Your task to perform on an android device: open app "File Manager" Image 0: 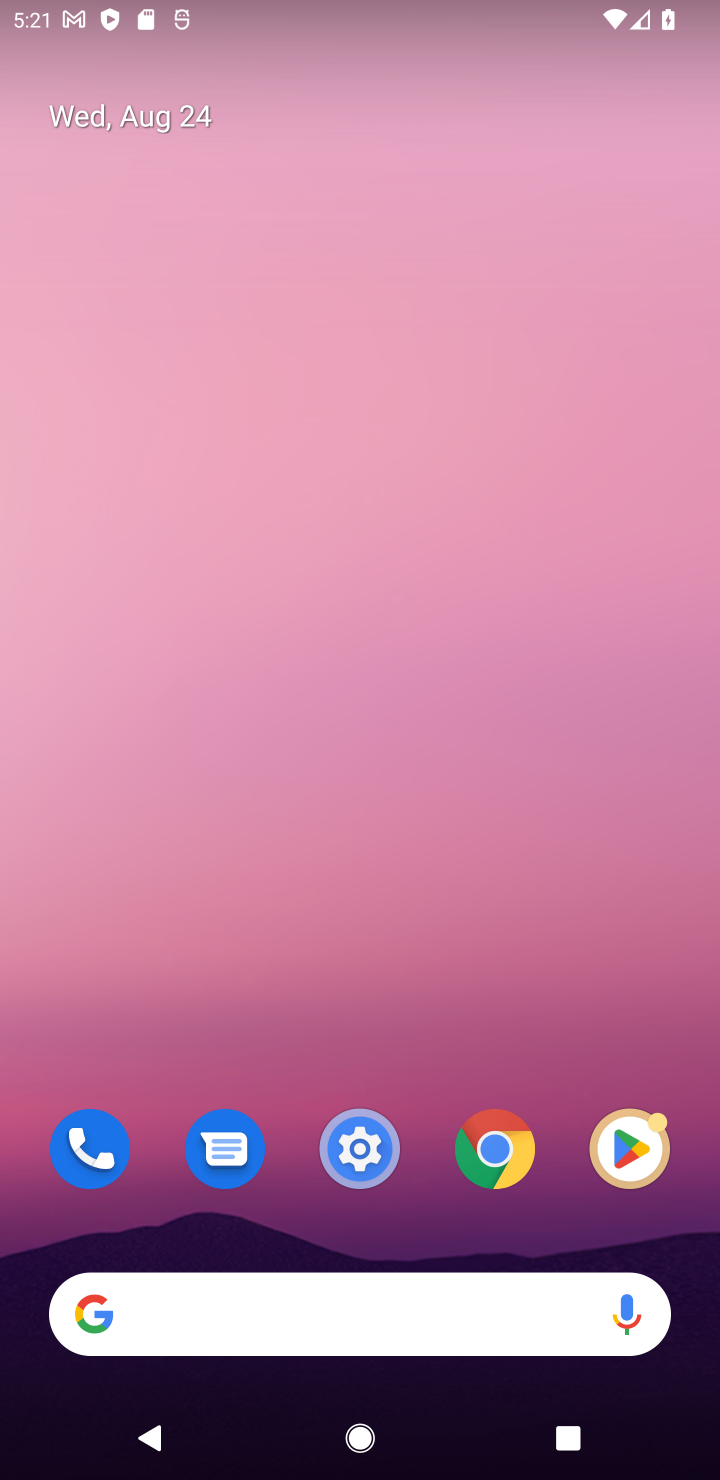
Step 0: click (636, 1154)
Your task to perform on an android device: open app "File Manager" Image 1: 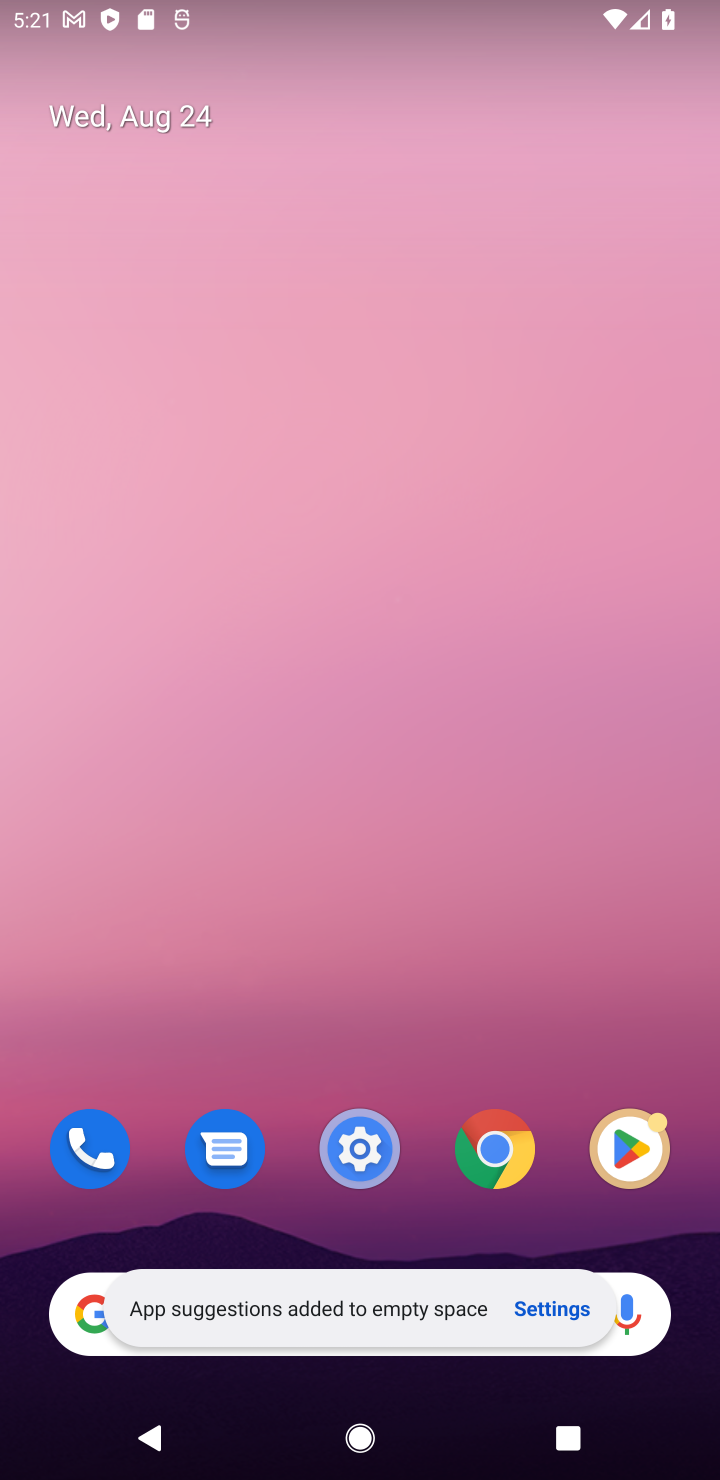
Step 1: click (620, 1161)
Your task to perform on an android device: open app "File Manager" Image 2: 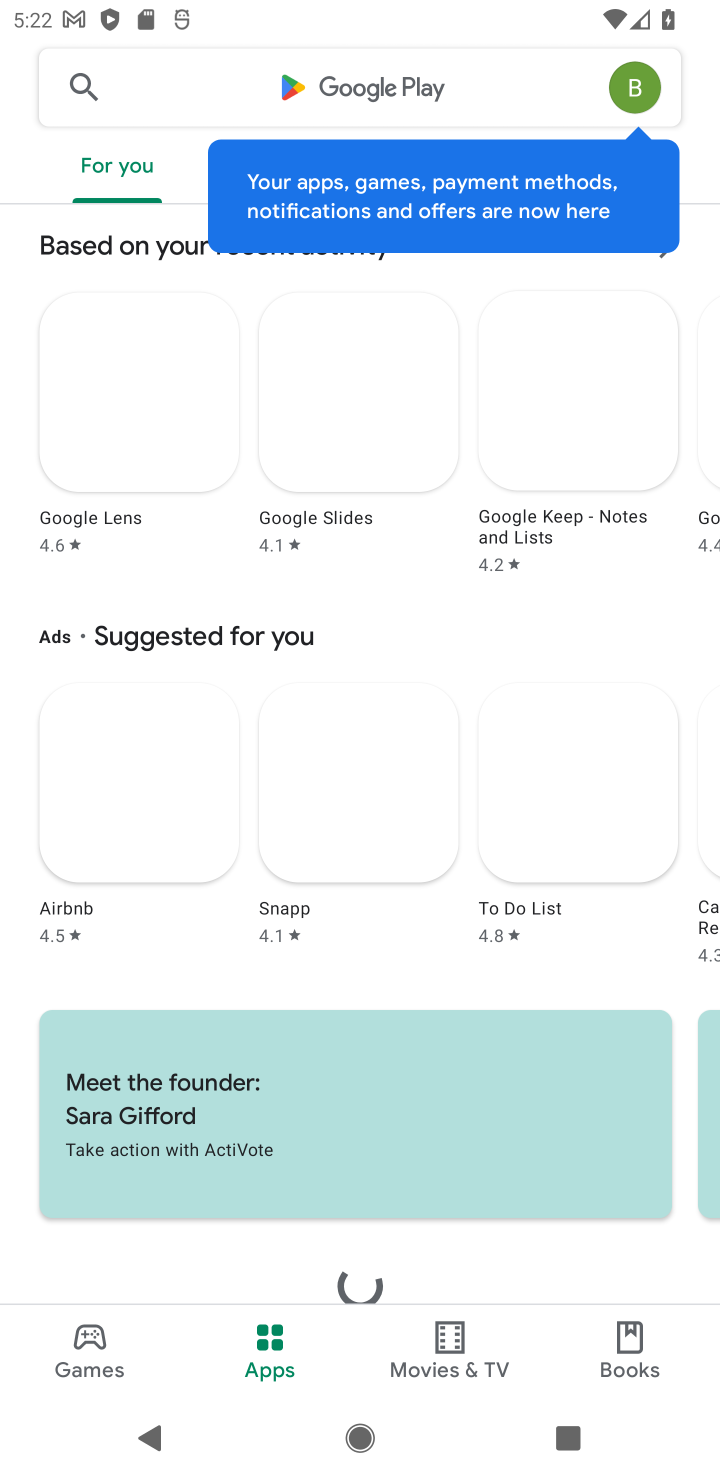
Step 2: click (365, 80)
Your task to perform on an android device: open app "File Manager" Image 3: 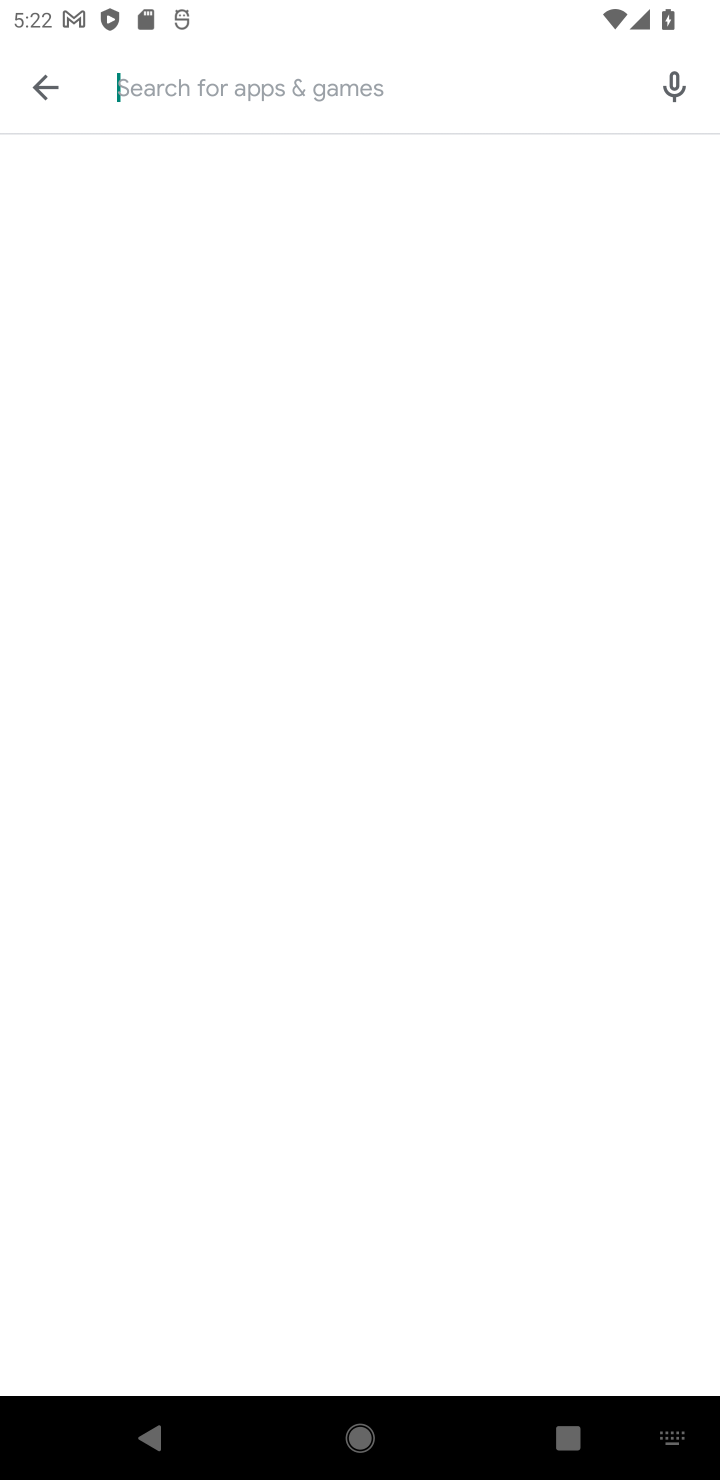
Step 3: type "File Manager"
Your task to perform on an android device: open app "File Manager" Image 4: 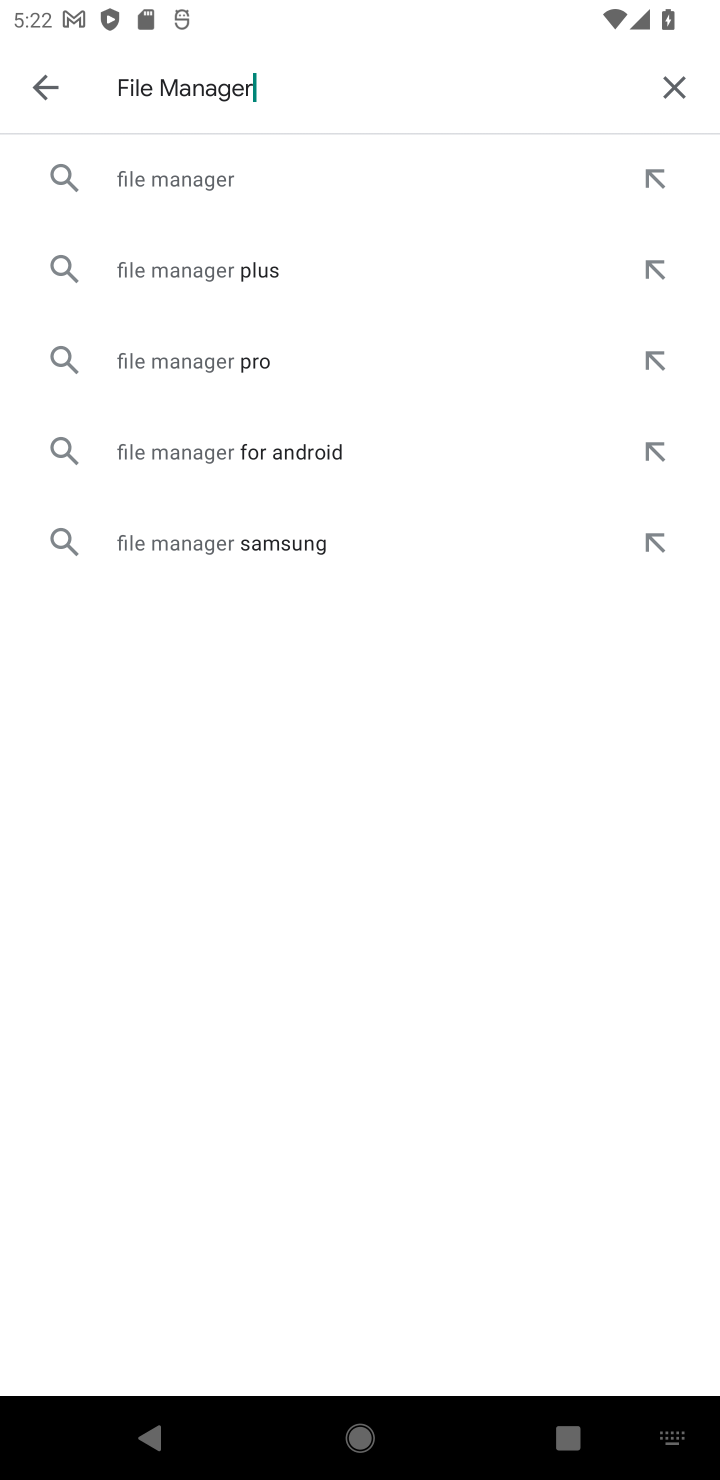
Step 4: click (165, 177)
Your task to perform on an android device: open app "File Manager" Image 5: 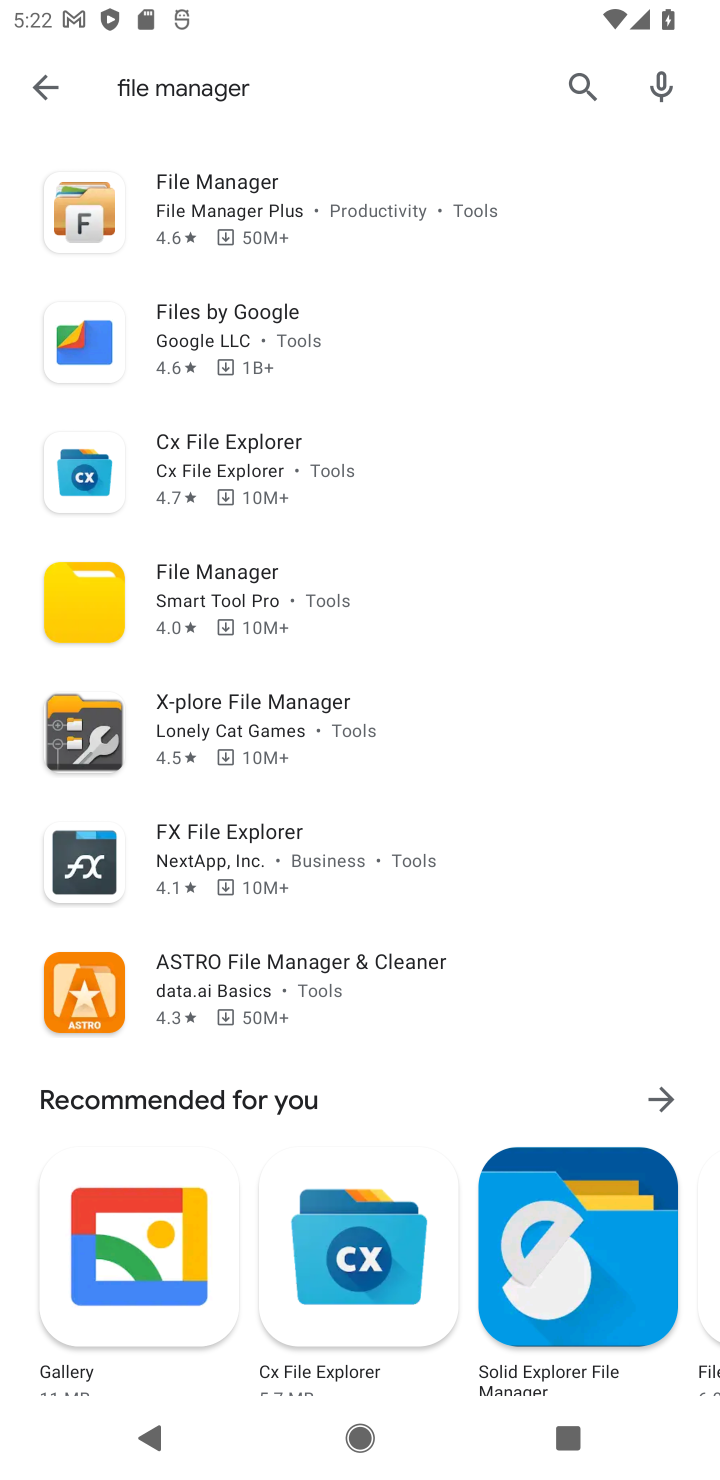
Step 5: click (265, 211)
Your task to perform on an android device: open app "File Manager" Image 6: 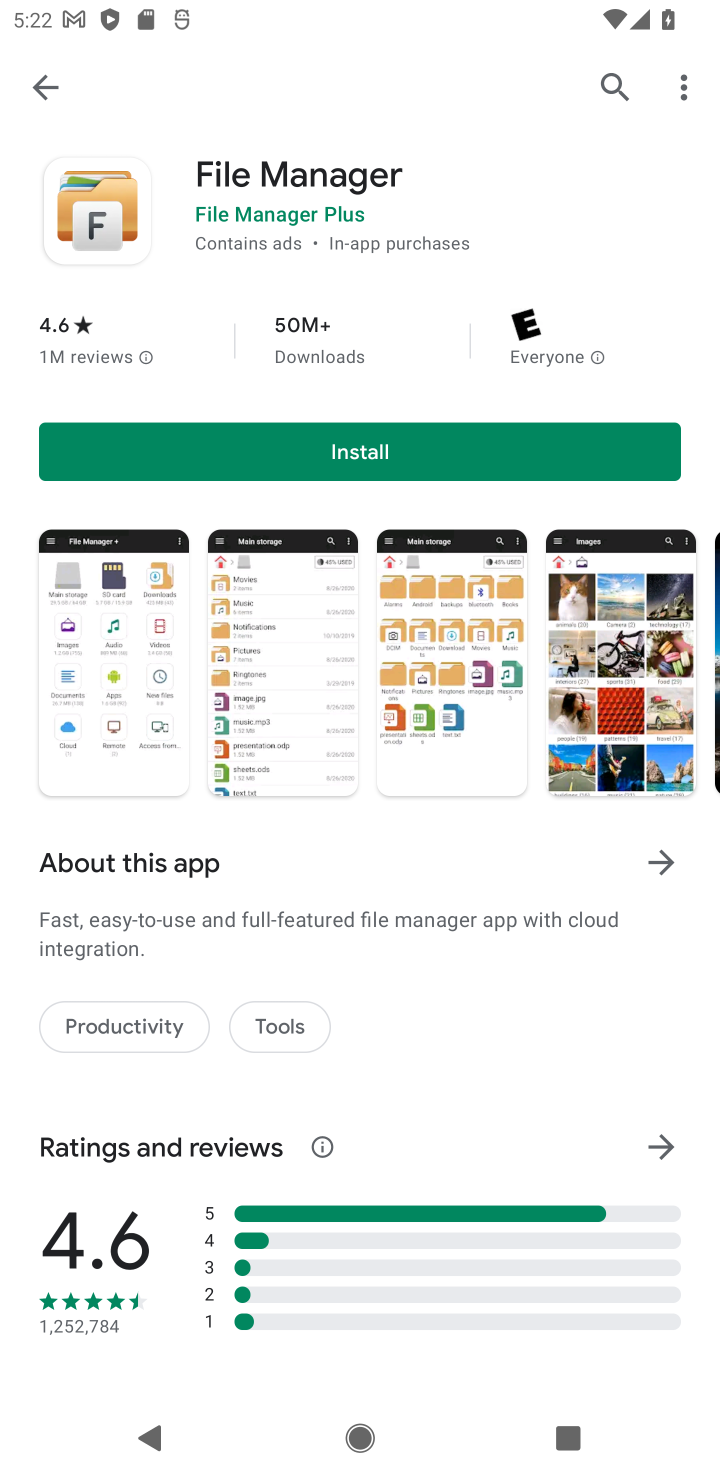
Step 6: task complete